Your task to perform on an android device: allow cookies in the chrome app Image 0: 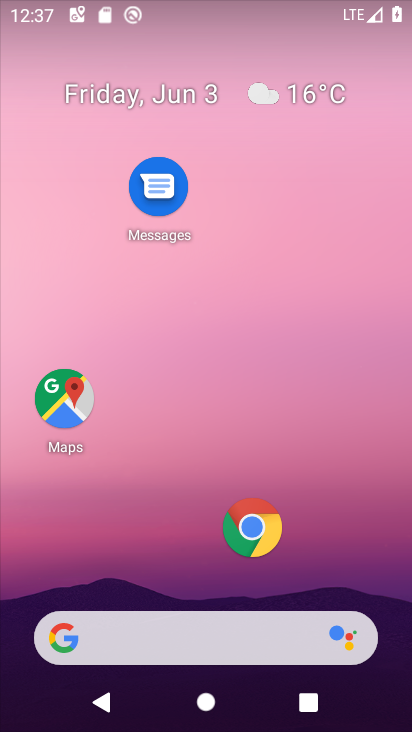
Step 0: press home button
Your task to perform on an android device: allow cookies in the chrome app Image 1: 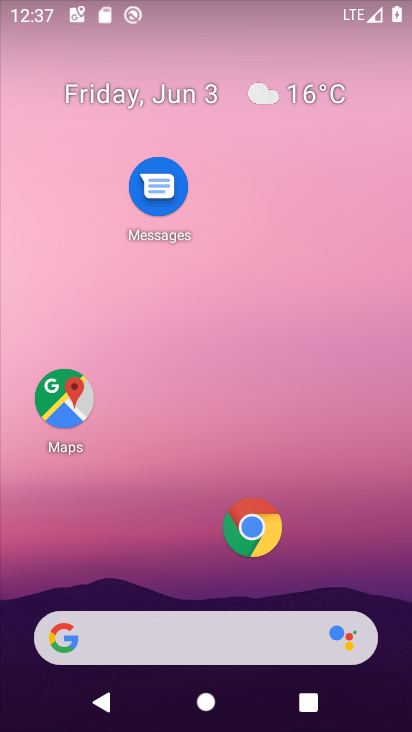
Step 1: click (251, 523)
Your task to perform on an android device: allow cookies in the chrome app Image 2: 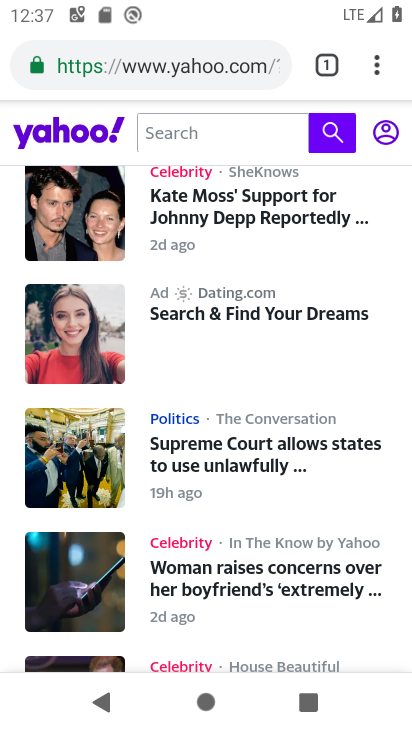
Step 2: click (377, 59)
Your task to perform on an android device: allow cookies in the chrome app Image 3: 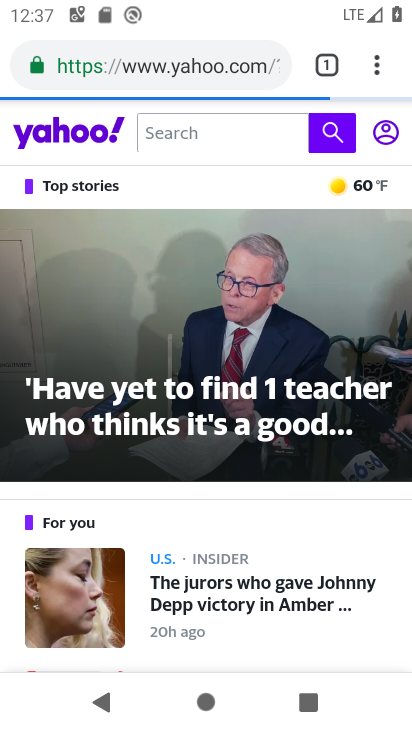
Step 3: click (371, 68)
Your task to perform on an android device: allow cookies in the chrome app Image 4: 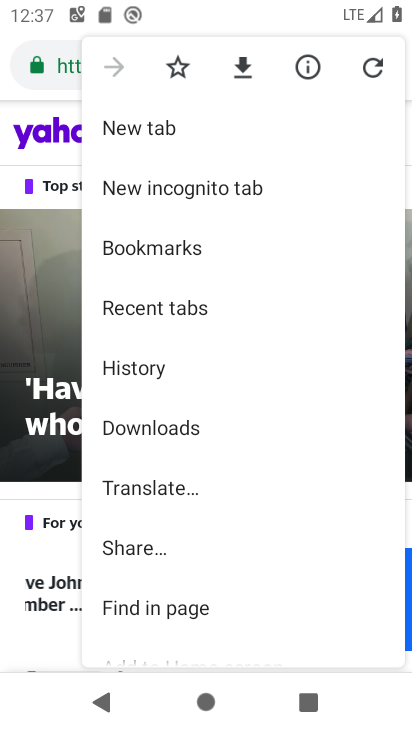
Step 4: drag from (223, 624) to (230, 208)
Your task to perform on an android device: allow cookies in the chrome app Image 5: 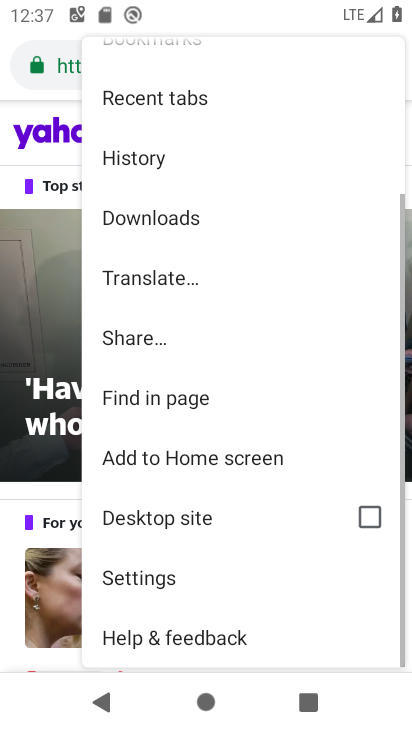
Step 5: click (178, 570)
Your task to perform on an android device: allow cookies in the chrome app Image 6: 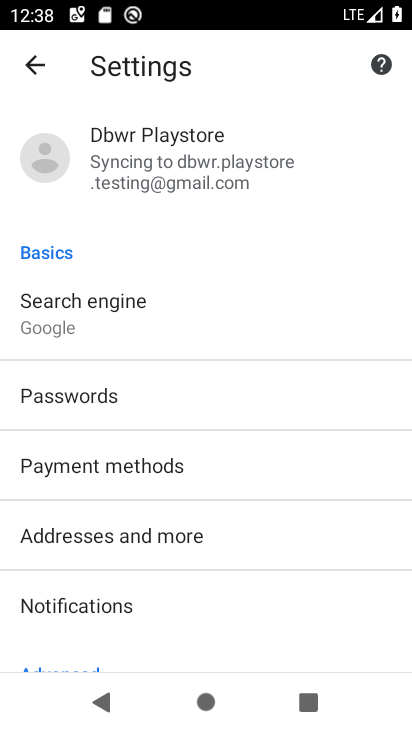
Step 6: drag from (167, 640) to (191, 153)
Your task to perform on an android device: allow cookies in the chrome app Image 7: 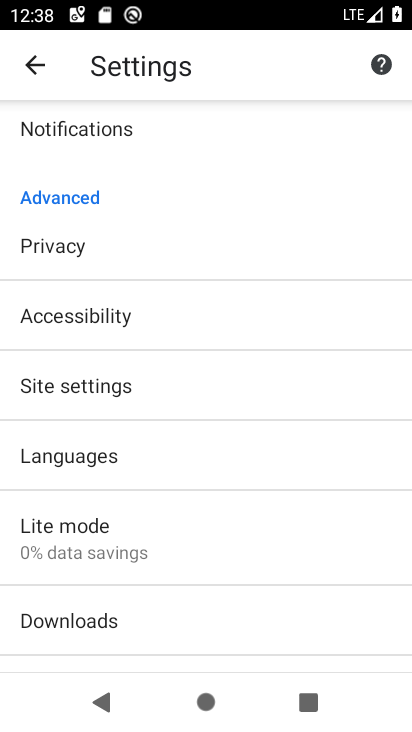
Step 7: click (151, 373)
Your task to perform on an android device: allow cookies in the chrome app Image 8: 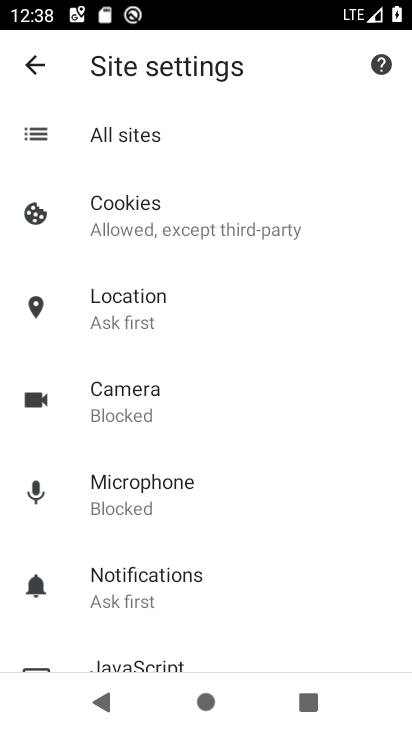
Step 8: click (160, 207)
Your task to perform on an android device: allow cookies in the chrome app Image 9: 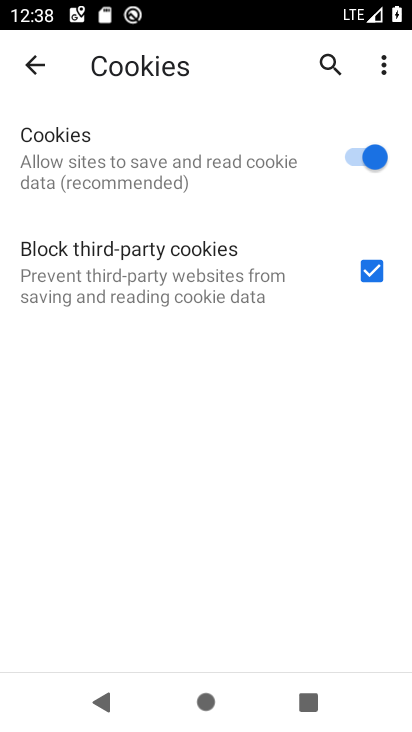
Step 9: task complete